Your task to perform on an android device: toggle wifi Image 0: 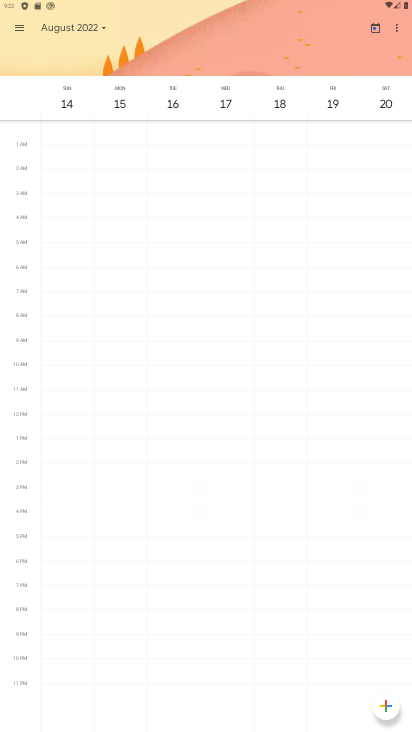
Step 0: press home button
Your task to perform on an android device: toggle wifi Image 1: 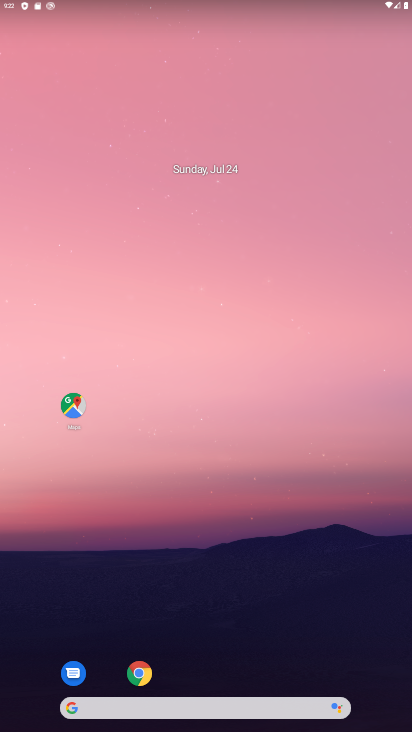
Step 1: drag from (228, 668) to (237, 17)
Your task to perform on an android device: toggle wifi Image 2: 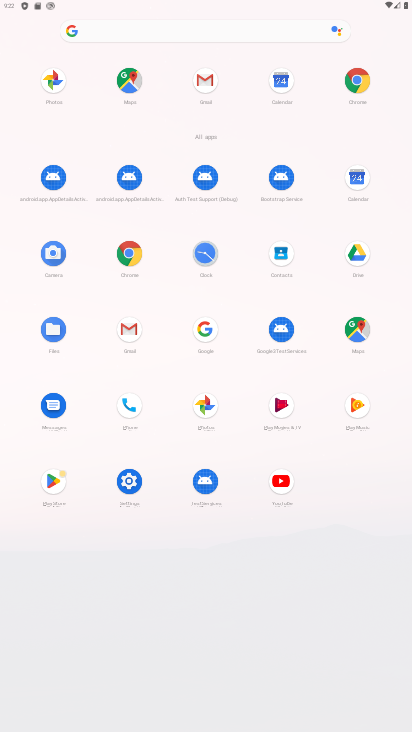
Step 2: click (130, 483)
Your task to perform on an android device: toggle wifi Image 3: 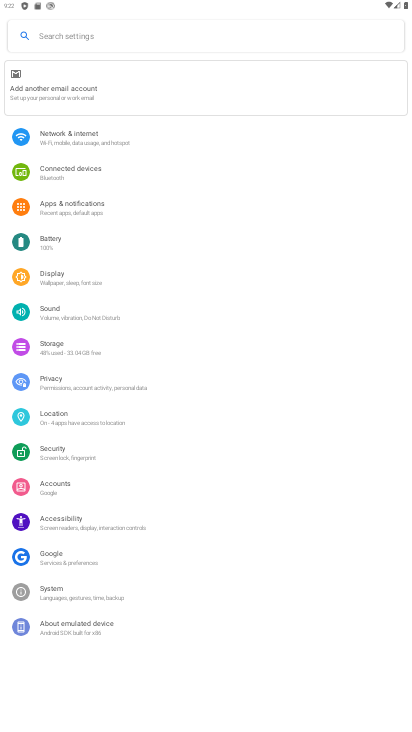
Step 3: click (95, 141)
Your task to perform on an android device: toggle wifi Image 4: 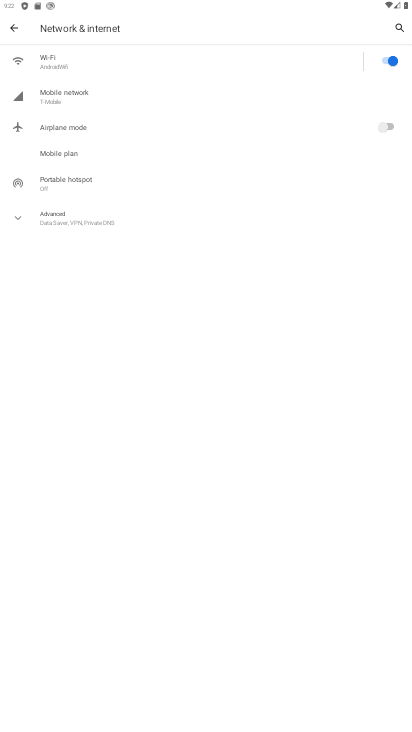
Step 4: click (369, 62)
Your task to perform on an android device: toggle wifi Image 5: 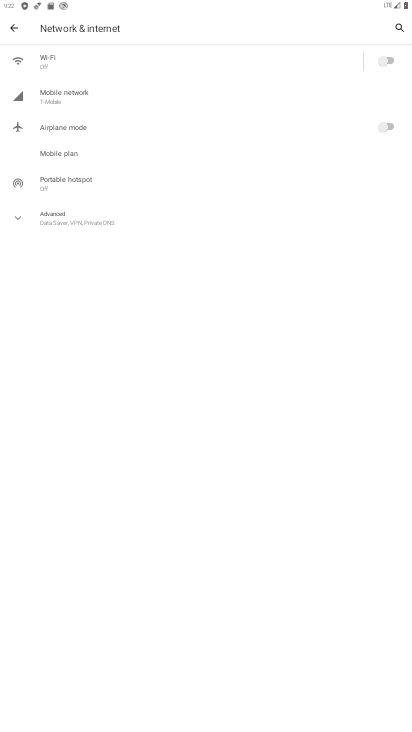
Step 5: task complete